Your task to perform on an android device: set default search engine in the chrome app Image 0: 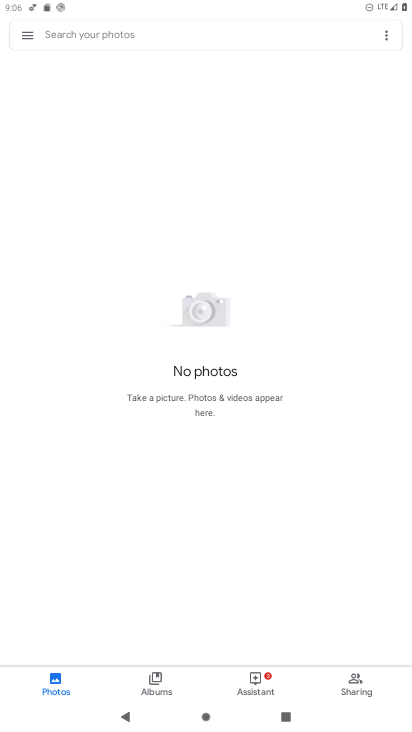
Step 0: press home button
Your task to perform on an android device: set default search engine in the chrome app Image 1: 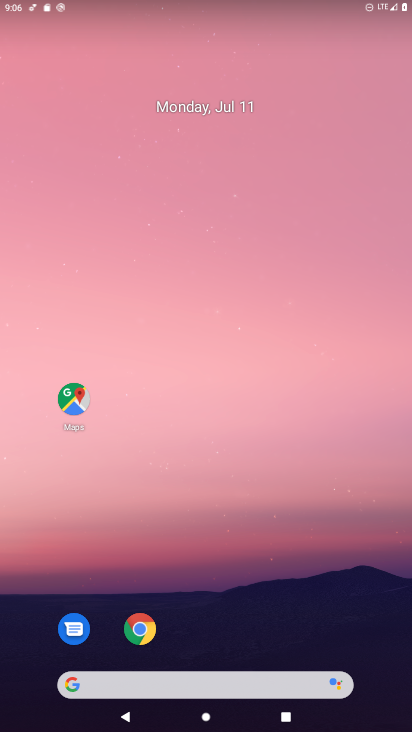
Step 1: click (141, 628)
Your task to perform on an android device: set default search engine in the chrome app Image 2: 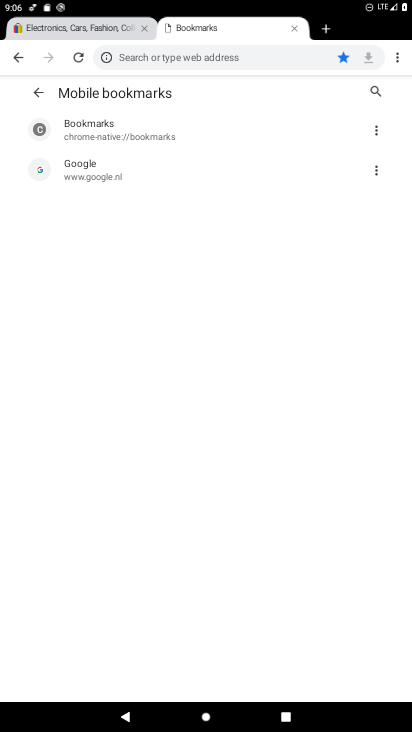
Step 2: click (391, 59)
Your task to perform on an android device: set default search engine in the chrome app Image 3: 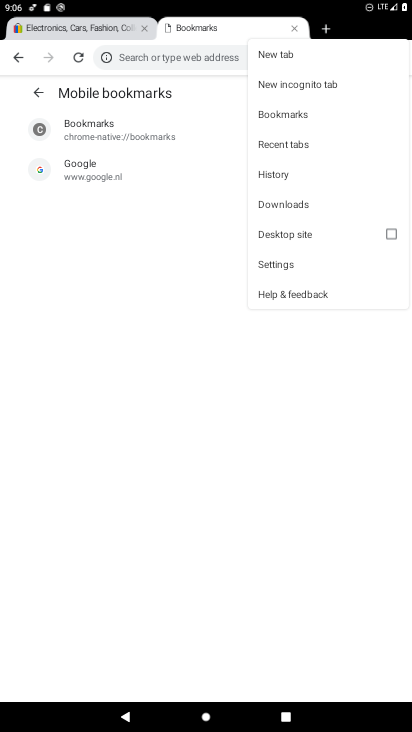
Step 3: click (279, 270)
Your task to perform on an android device: set default search engine in the chrome app Image 4: 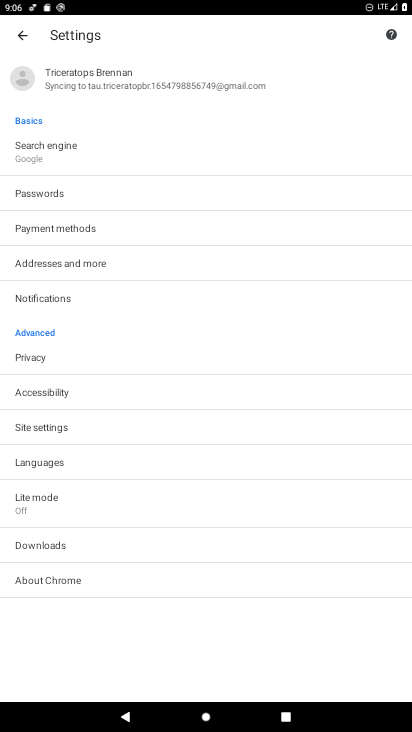
Step 4: click (134, 153)
Your task to perform on an android device: set default search engine in the chrome app Image 5: 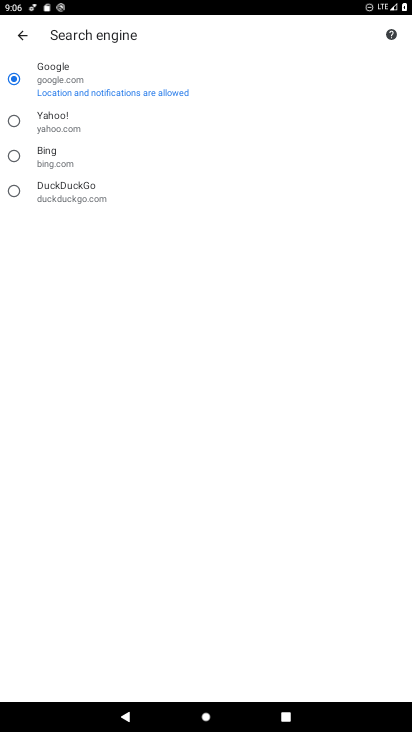
Step 5: click (81, 166)
Your task to perform on an android device: set default search engine in the chrome app Image 6: 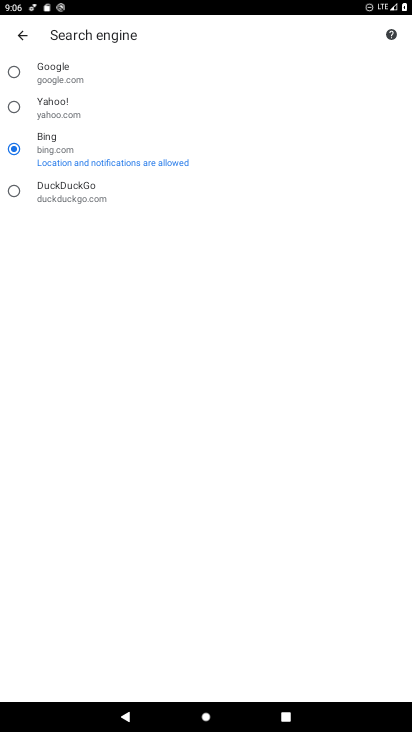
Step 6: task complete